Your task to perform on an android device: turn off translation in the chrome app Image 0: 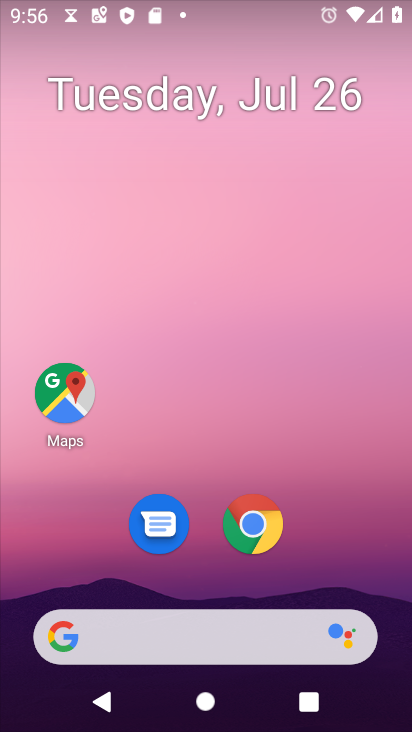
Step 0: press home button
Your task to perform on an android device: turn off translation in the chrome app Image 1: 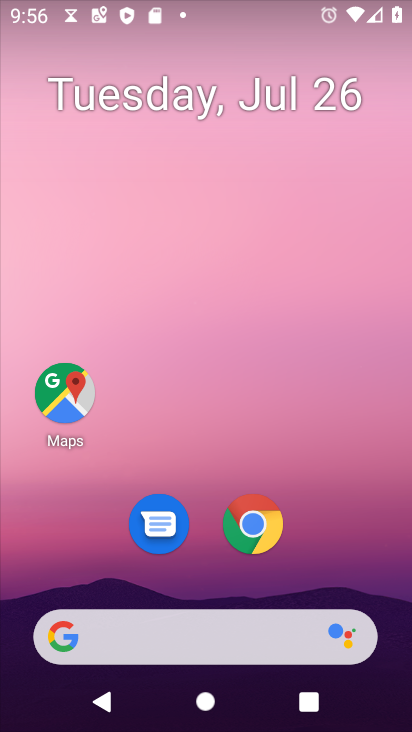
Step 1: click (262, 530)
Your task to perform on an android device: turn off translation in the chrome app Image 2: 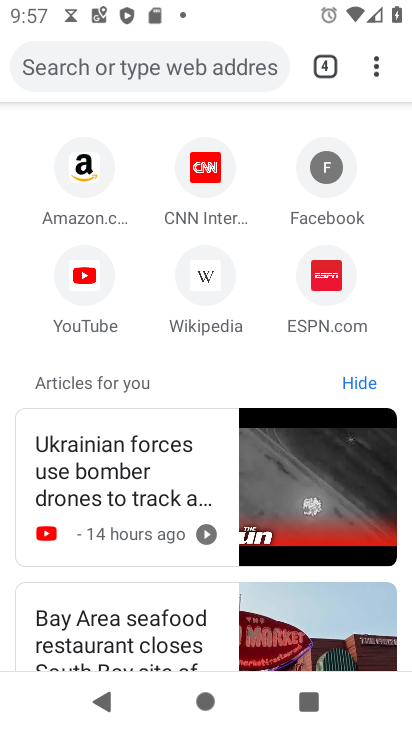
Step 2: drag from (378, 76) to (151, 554)
Your task to perform on an android device: turn off translation in the chrome app Image 3: 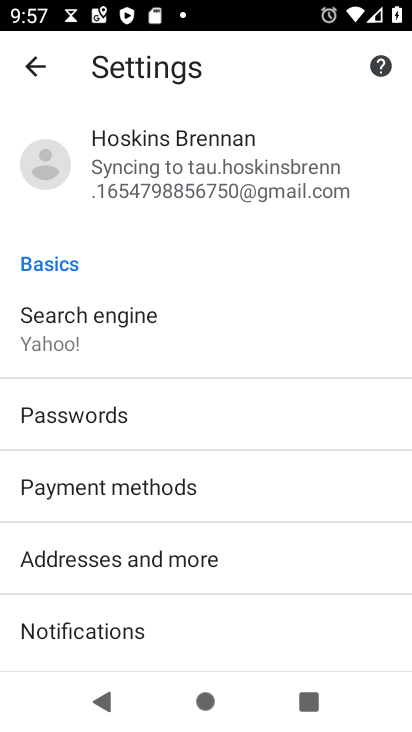
Step 3: drag from (202, 569) to (400, 129)
Your task to perform on an android device: turn off translation in the chrome app Image 4: 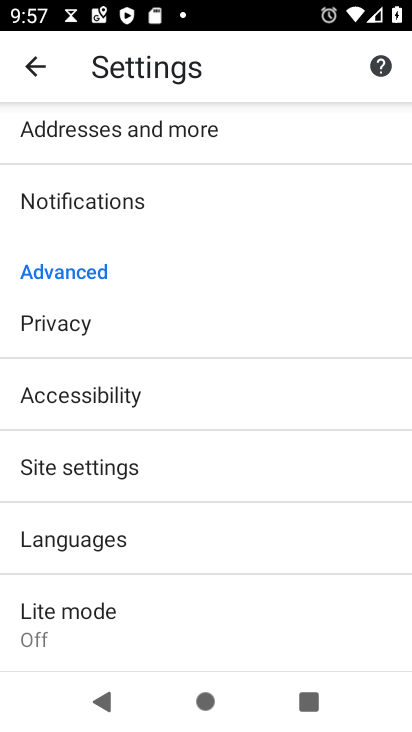
Step 4: click (106, 542)
Your task to perform on an android device: turn off translation in the chrome app Image 5: 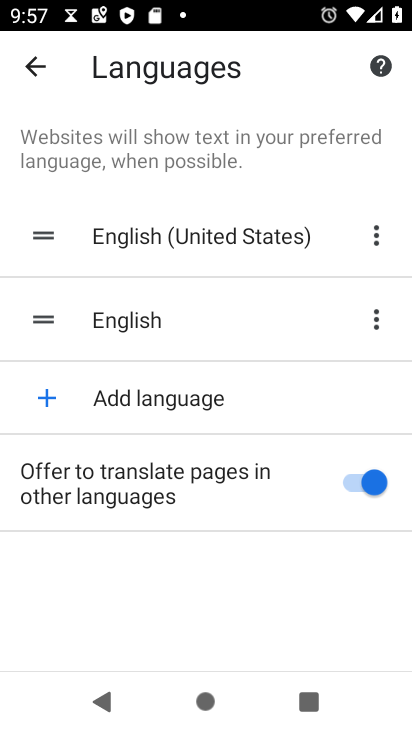
Step 5: click (354, 477)
Your task to perform on an android device: turn off translation in the chrome app Image 6: 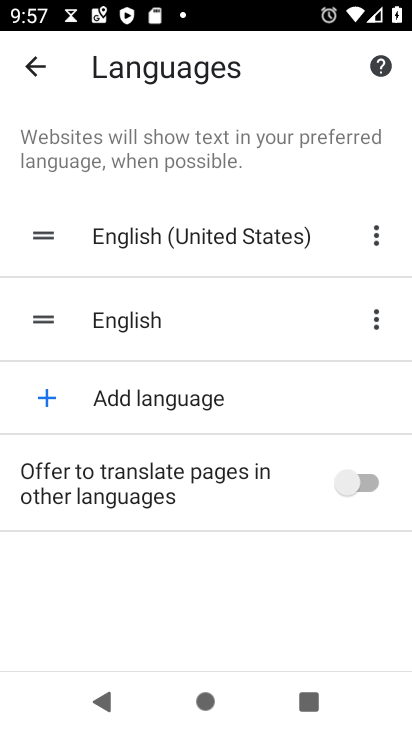
Step 6: task complete